Your task to perform on an android device: Show me productivity apps on the Play Store Image 0: 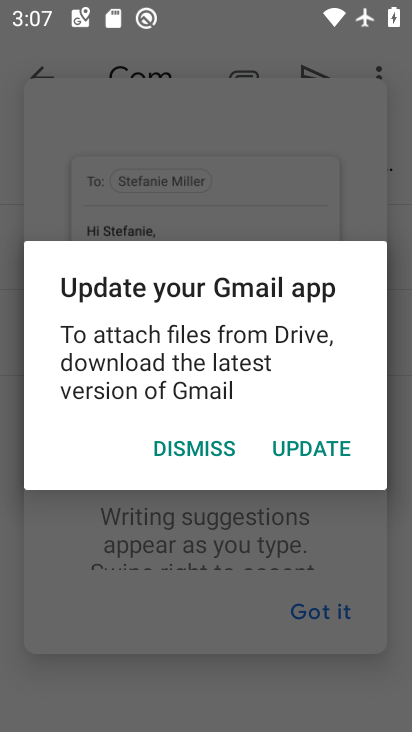
Step 0: press home button
Your task to perform on an android device: Show me productivity apps on the Play Store Image 1: 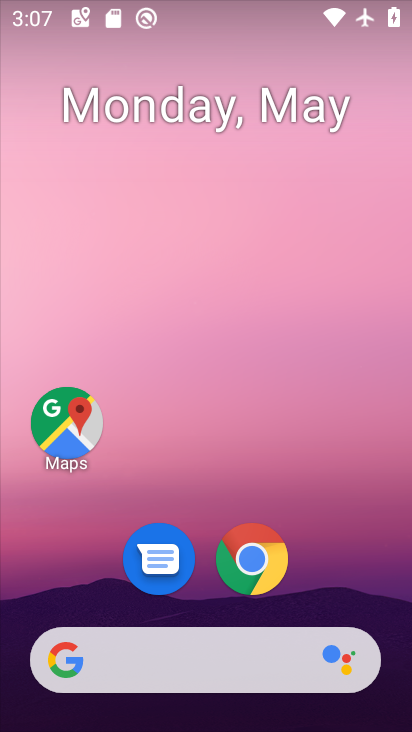
Step 1: drag from (192, 614) to (249, 179)
Your task to perform on an android device: Show me productivity apps on the Play Store Image 2: 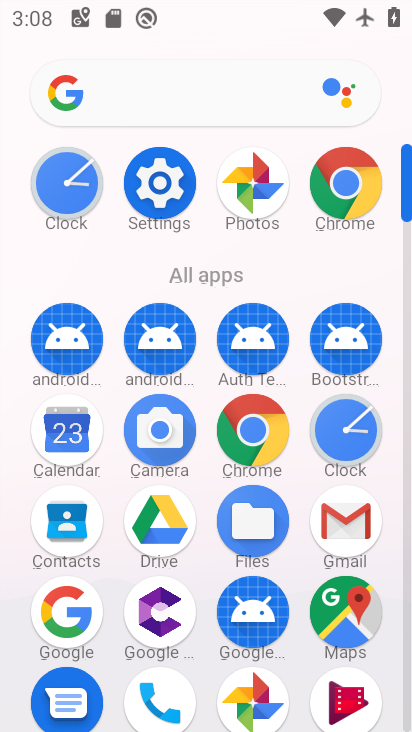
Step 2: drag from (187, 678) to (232, 410)
Your task to perform on an android device: Show me productivity apps on the Play Store Image 3: 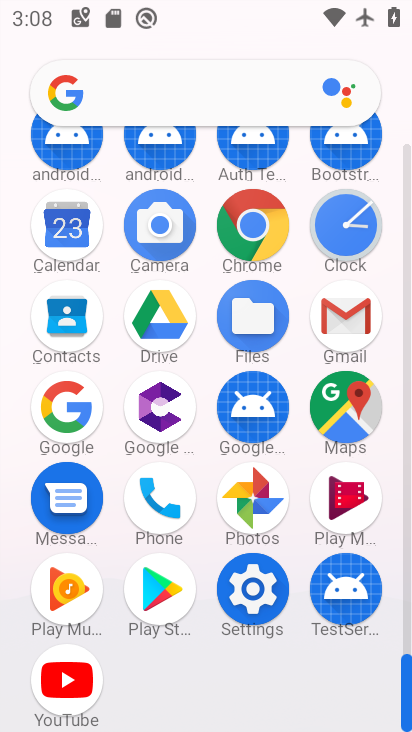
Step 3: click (152, 591)
Your task to perform on an android device: Show me productivity apps on the Play Store Image 4: 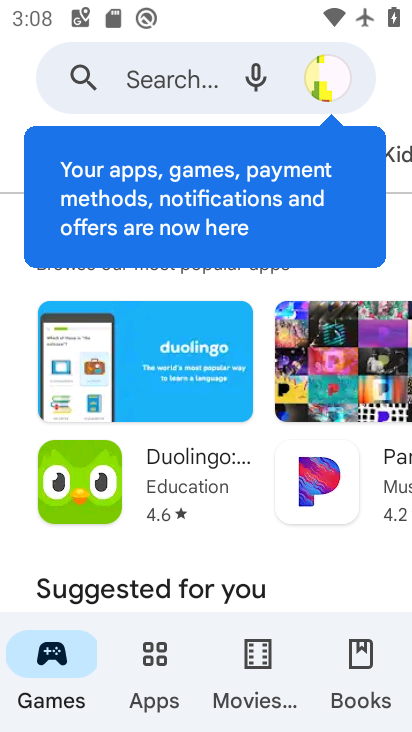
Step 4: click (148, 678)
Your task to perform on an android device: Show me productivity apps on the Play Store Image 5: 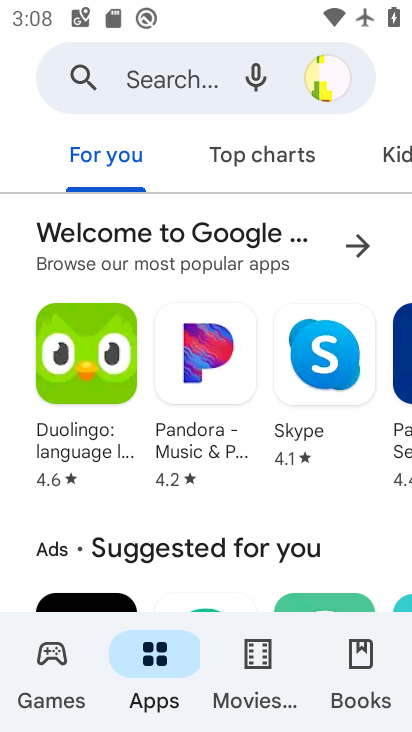
Step 5: click (153, 657)
Your task to perform on an android device: Show me productivity apps on the Play Store Image 6: 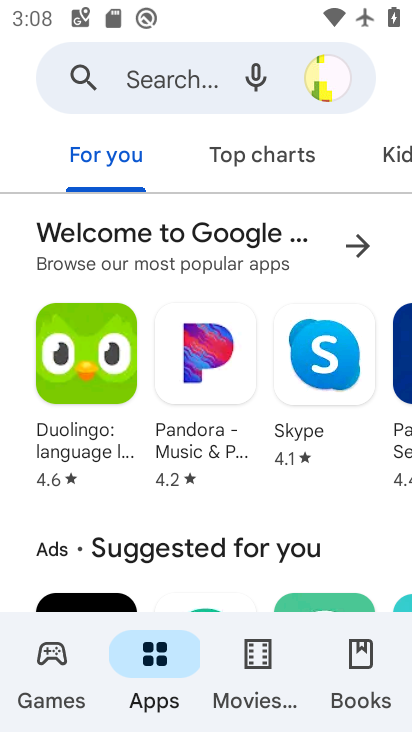
Step 6: click (153, 657)
Your task to perform on an android device: Show me productivity apps on the Play Store Image 7: 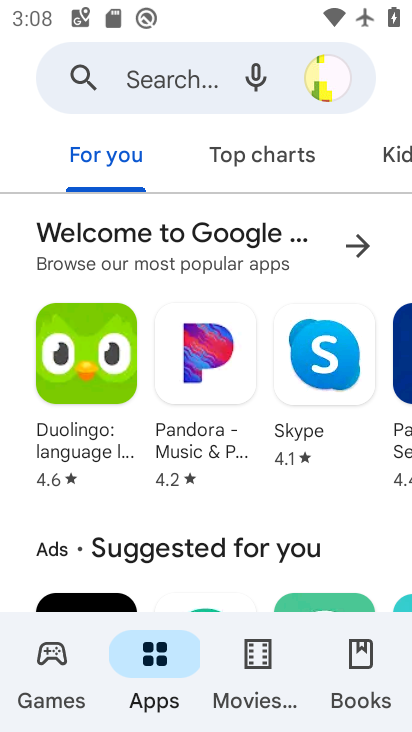
Step 7: click (153, 657)
Your task to perform on an android device: Show me productivity apps on the Play Store Image 8: 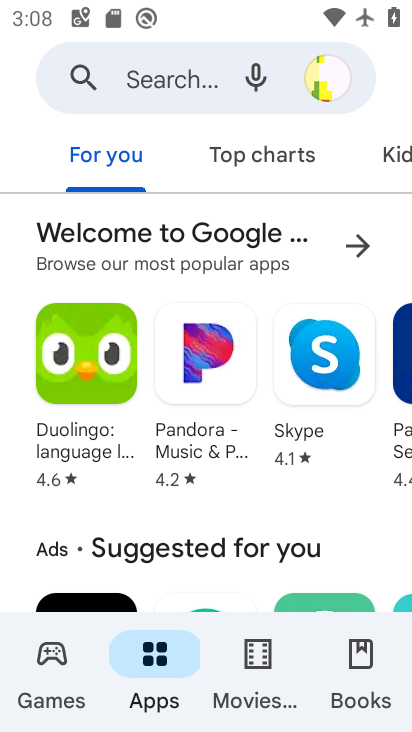
Step 8: drag from (375, 141) to (176, 145)
Your task to perform on an android device: Show me productivity apps on the Play Store Image 9: 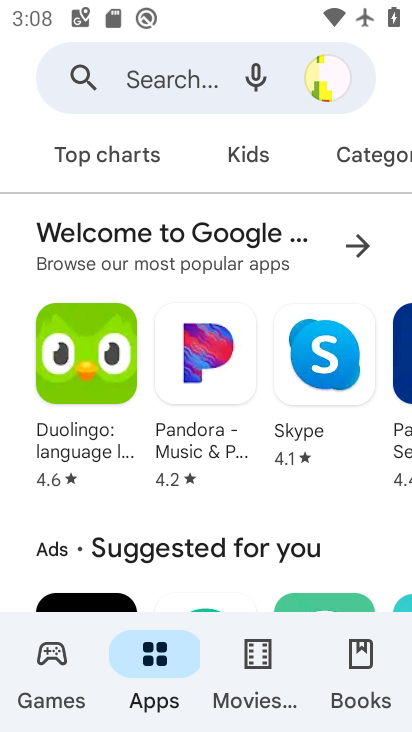
Step 9: drag from (351, 161) to (109, 149)
Your task to perform on an android device: Show me productivity apps on the Play Store Image 10: 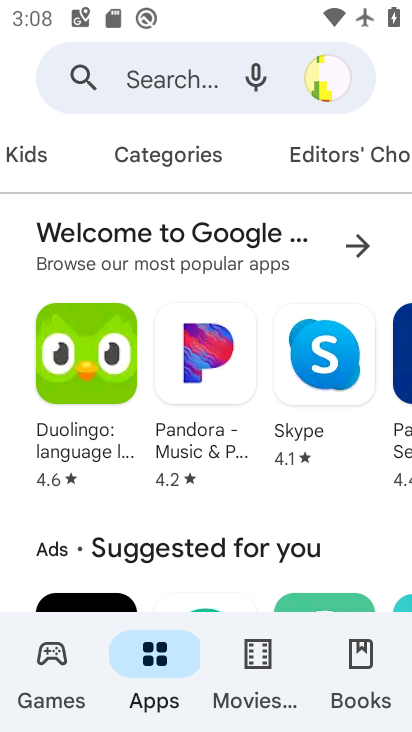
Step 10: click (160, 160)
Your task to perform on an android device: Show me productivity apps on the Play Store Image 11: 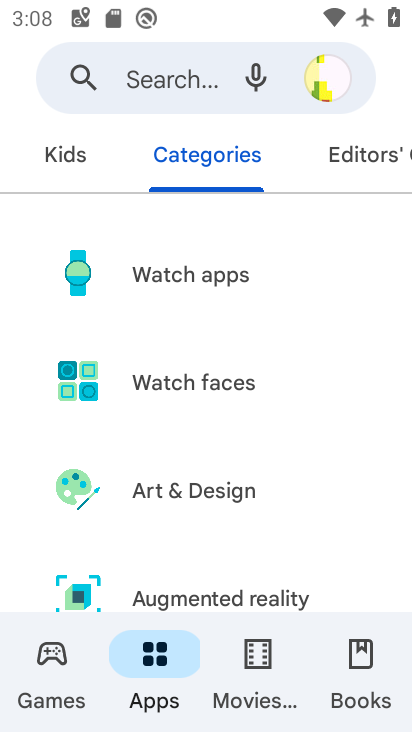
Step 11: click (278, 217)
Your task to perform on an android device: Show me productivity apps on the Play Store Image 12: 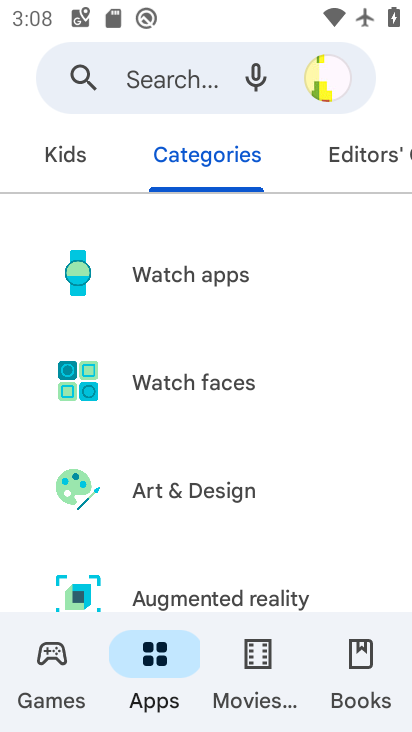
Step 12: drag from (221, 535) to (211, 276)
Your task to perform on an android device: Show me productivity apps on the Play Store Image 13: 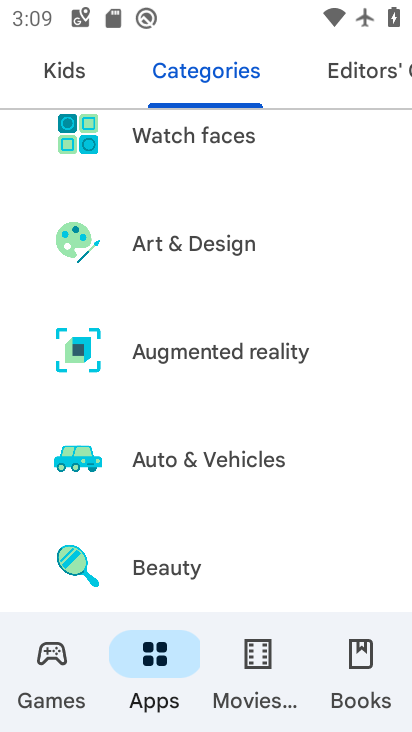
Step 13: drag from (190, 517) to (204, 210)
Your task to perform on an android device: Show me productivity apps on the Play Store Image 14: 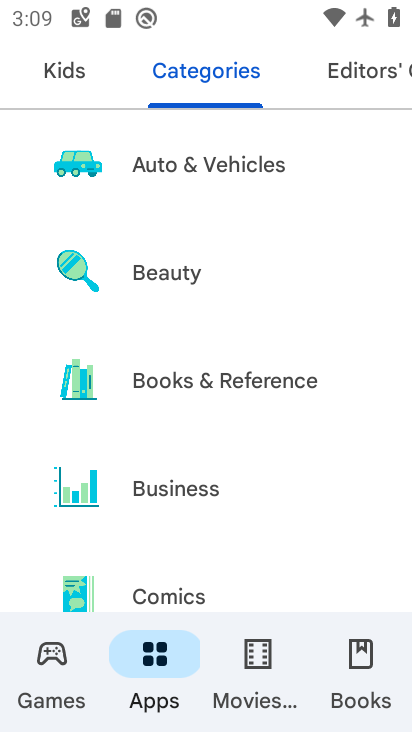
Step 14: drag from (223, 491) to (200, 226)
Your task to perform on an android device: Show me productivity apps on the Play Store Image 15: 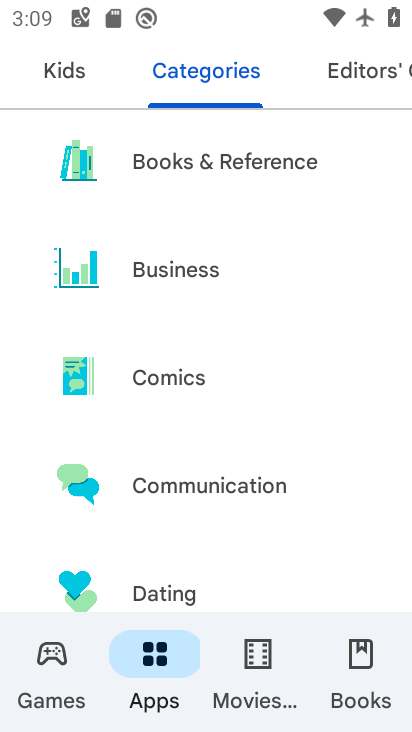
Step 15: drag from (216, 534) to (230, 250)
Your task to perform on an android device: Show me productivity apps on the Play Store Image 16: 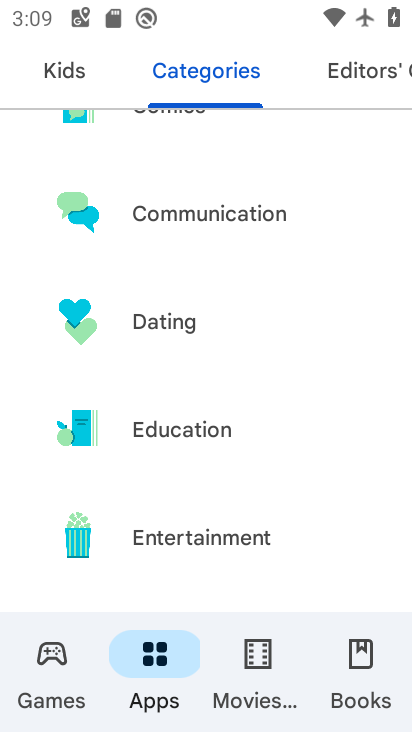
Step 16: drag from (216, 536) to (216, 285)
Your task to perform on an android device: Show me productivity apps on the Play Store Image 17: 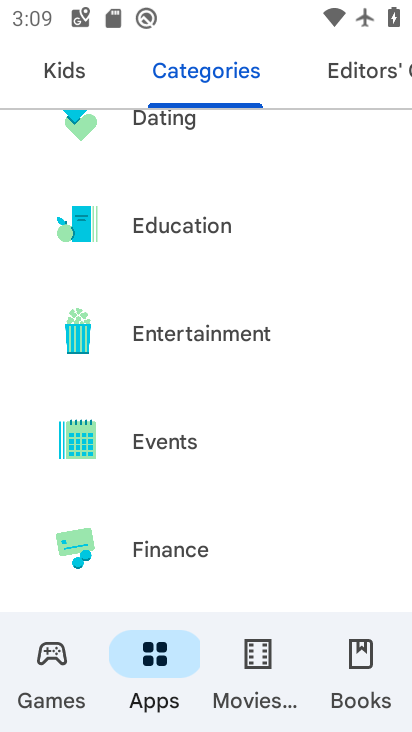
Step 17: drag from (208, 511) to (219, 241)
Your task to perform on an android device: Show me productivity apps on the Play Store Image 18: 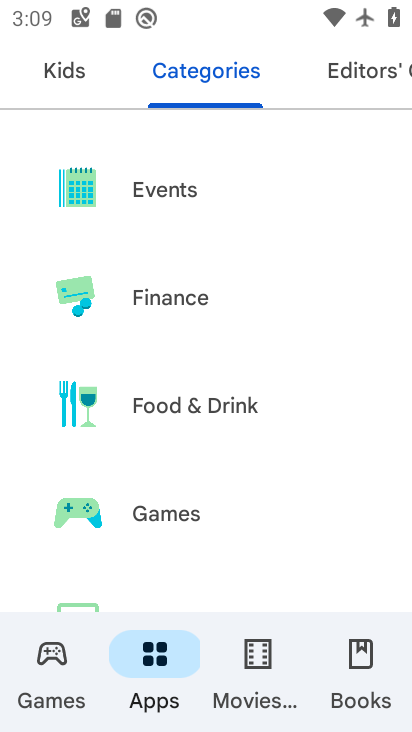
Step 18: drag from (242, 489) to (300, 173)
Your task to perform on an android device: Show me productivity apps on the Play Store Image 19: 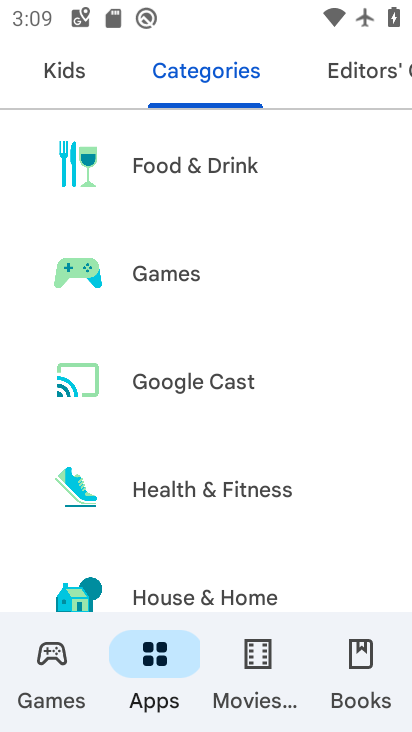
Step 19: drag from (233, 532) to (284, 76)
Your task to perform on an android device: Show me productivity apps on the Play Store Image 20: 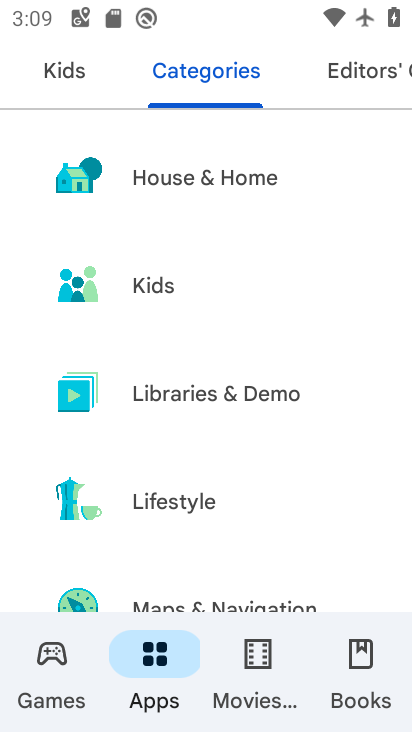
Step 20: drag from (210, 513) to (259, 48)
Your task to perform on an android device: Show me productivity apps on the Play Store Image 21: 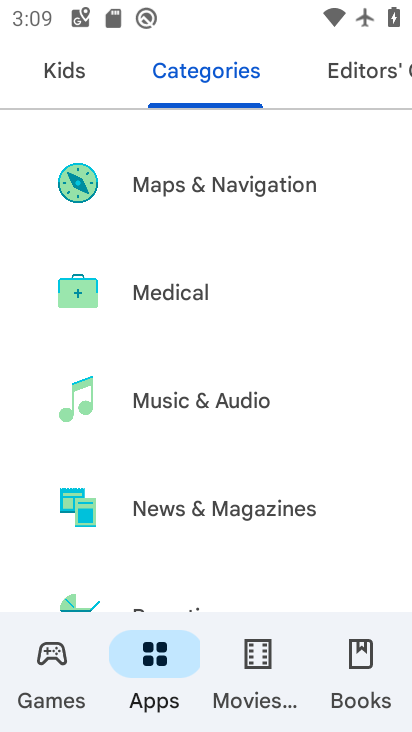
Step 21: drag from (235, 545) to (242, 129)
Your task to perform on an android device: Show me productivity apps on the Play Store Image 22: 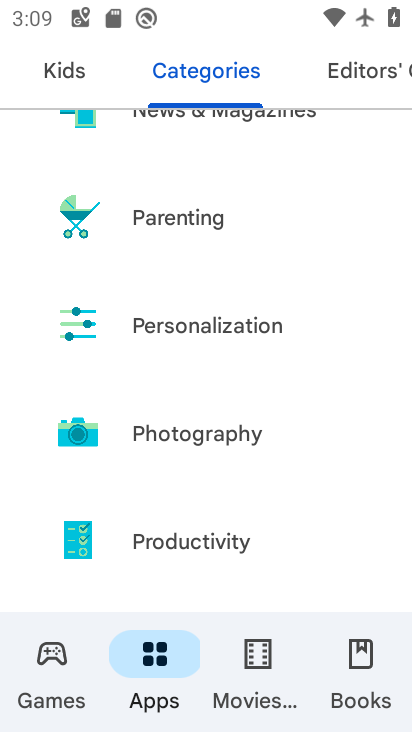
Step 22: click (157, 549)
Your task to perform on an android device: Show me productivity apps on the Play Store Image 23: 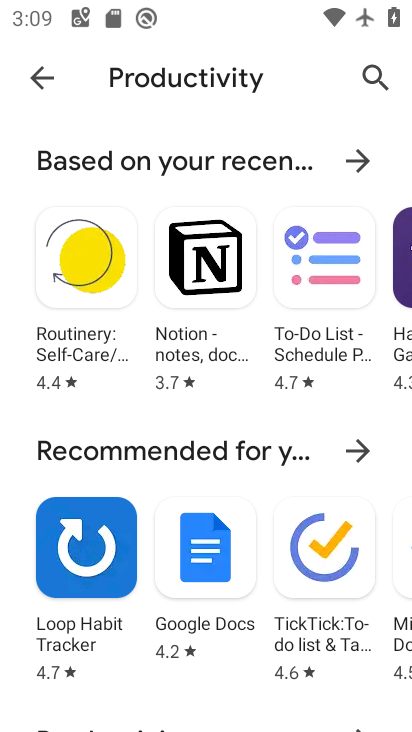
Step 23: task complete